Your task to perform on an android device: open the mobile data screen to see how much data has been used Image 0: 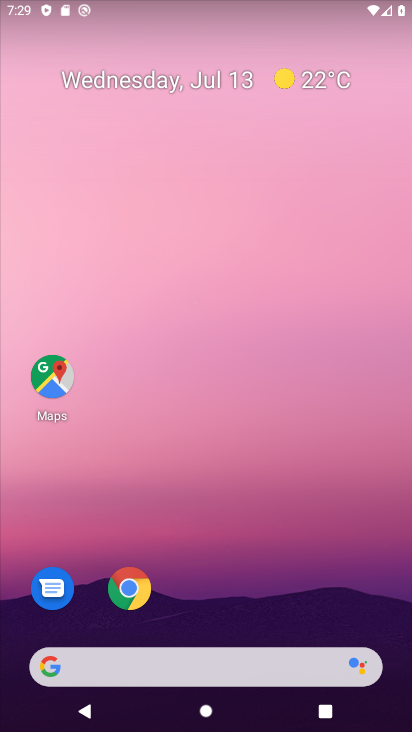
Step 0: drag from (216, 618) to (264, 235)
Your task to perform on an android device: open the mobile data screen to see how much data has been used Image 1: 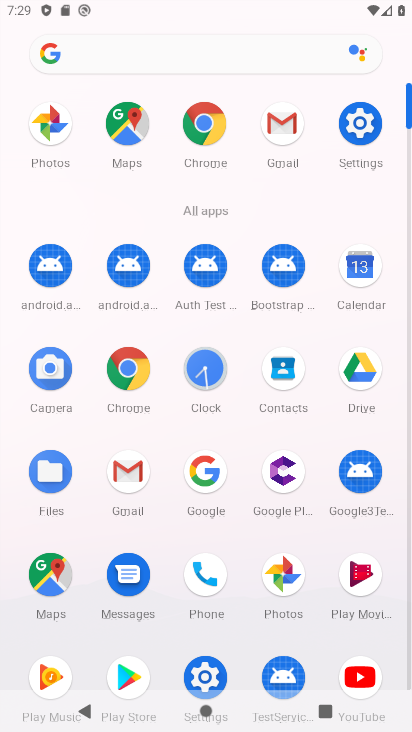
Step 1: click (366, 110)
Your task to perform on an android device: open the mobile data screen to see how much data has been used Image 2: 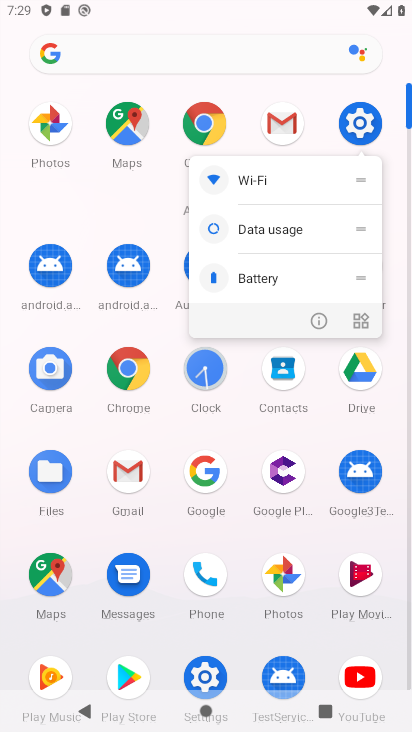
Step 2: click (366, 110)
Your task to perform on an android device: open the mobile data screen to see how much data has been used Image 3: 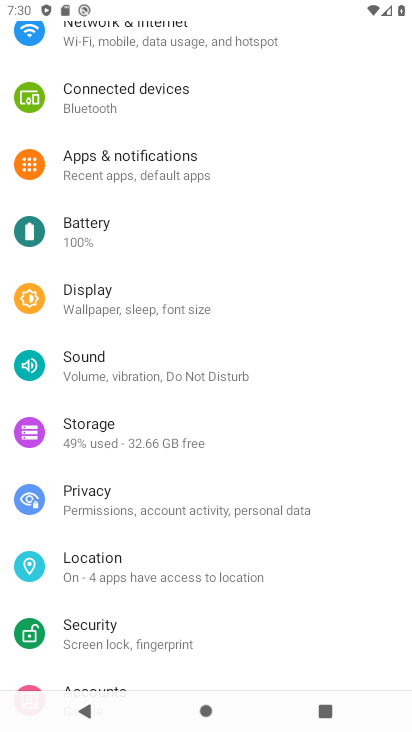
Step 3: drag from (204, 93) to (214, 598)
Your task to perform on an android device: open the mobile data screen to see how much data has been used Image 4: 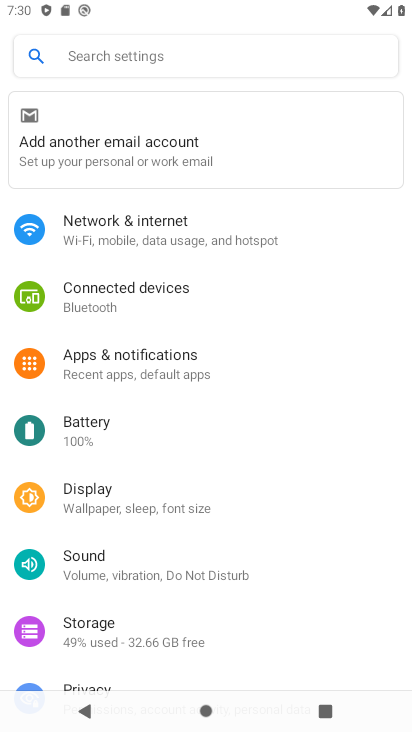
Step 4: click (180, 223)
Your task to perform on an android device: open the mobile data screen to see how much data has been used Image 5: 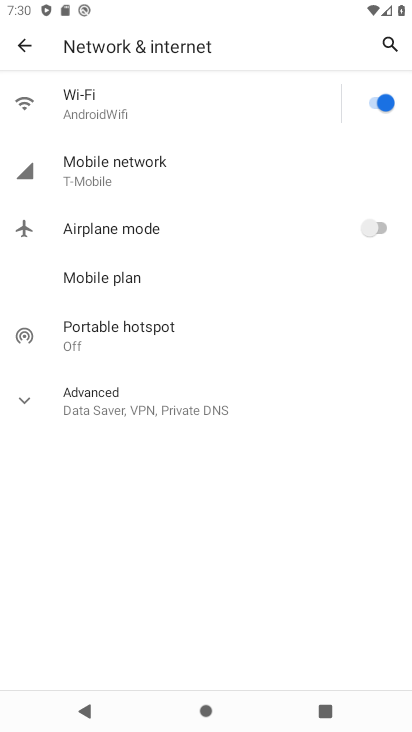
Step 5: click (129, 158)
Your task to perform on an android device: open the mobile data screen to see how much data has been used Image 6: 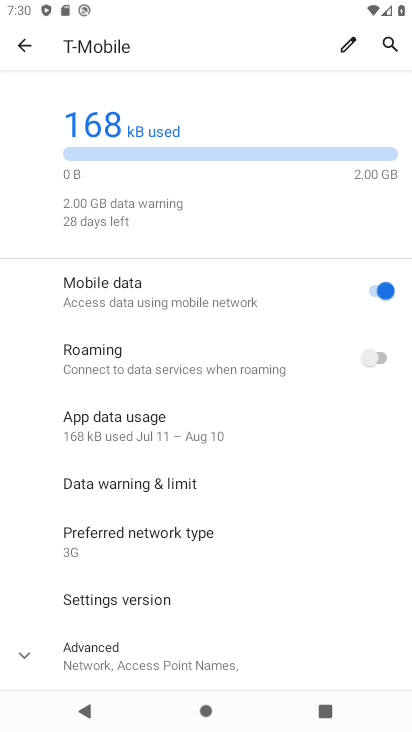
Step 6: task complete